Your task to perform on an android device: turn off translation in the chrome app Image 0: 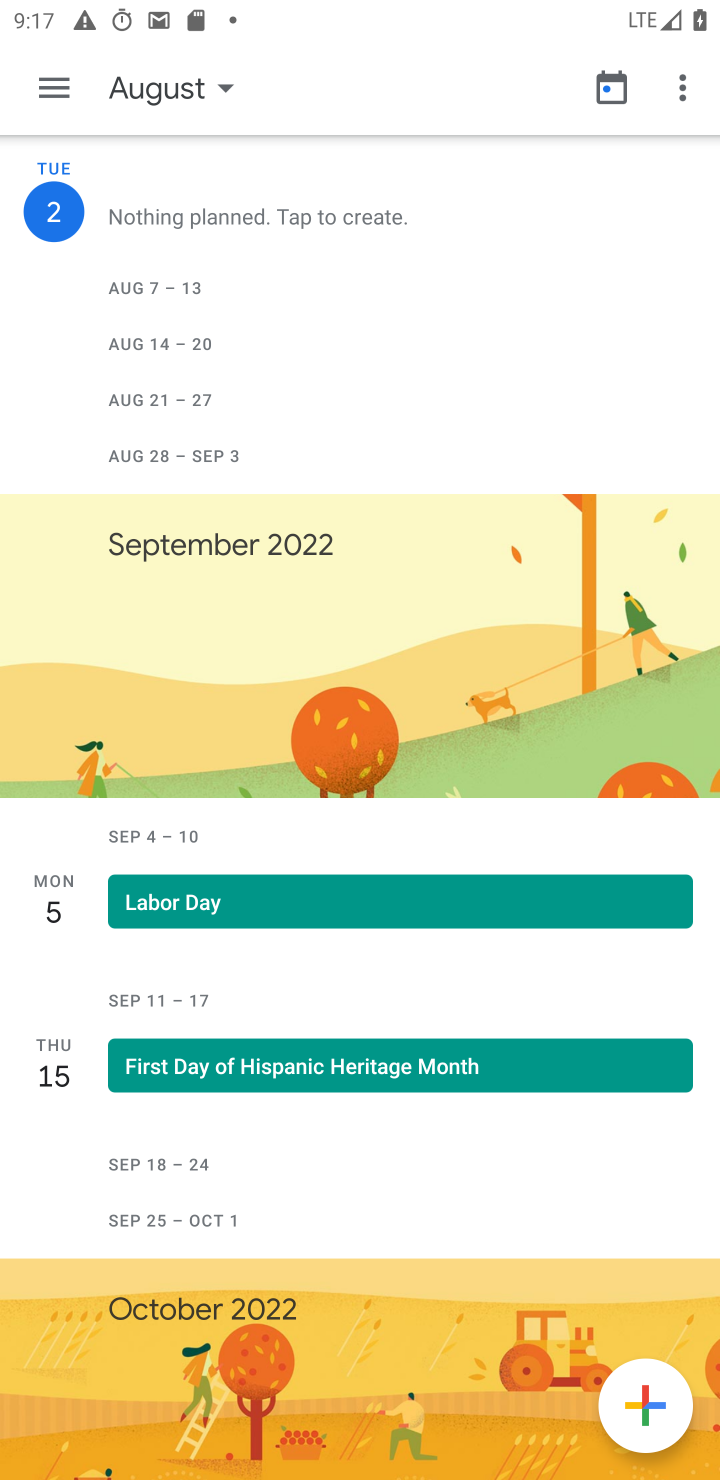
Step 0: click (57, 94)
Your task to perform on an android device: turn off translation in the chrome app Image 1: 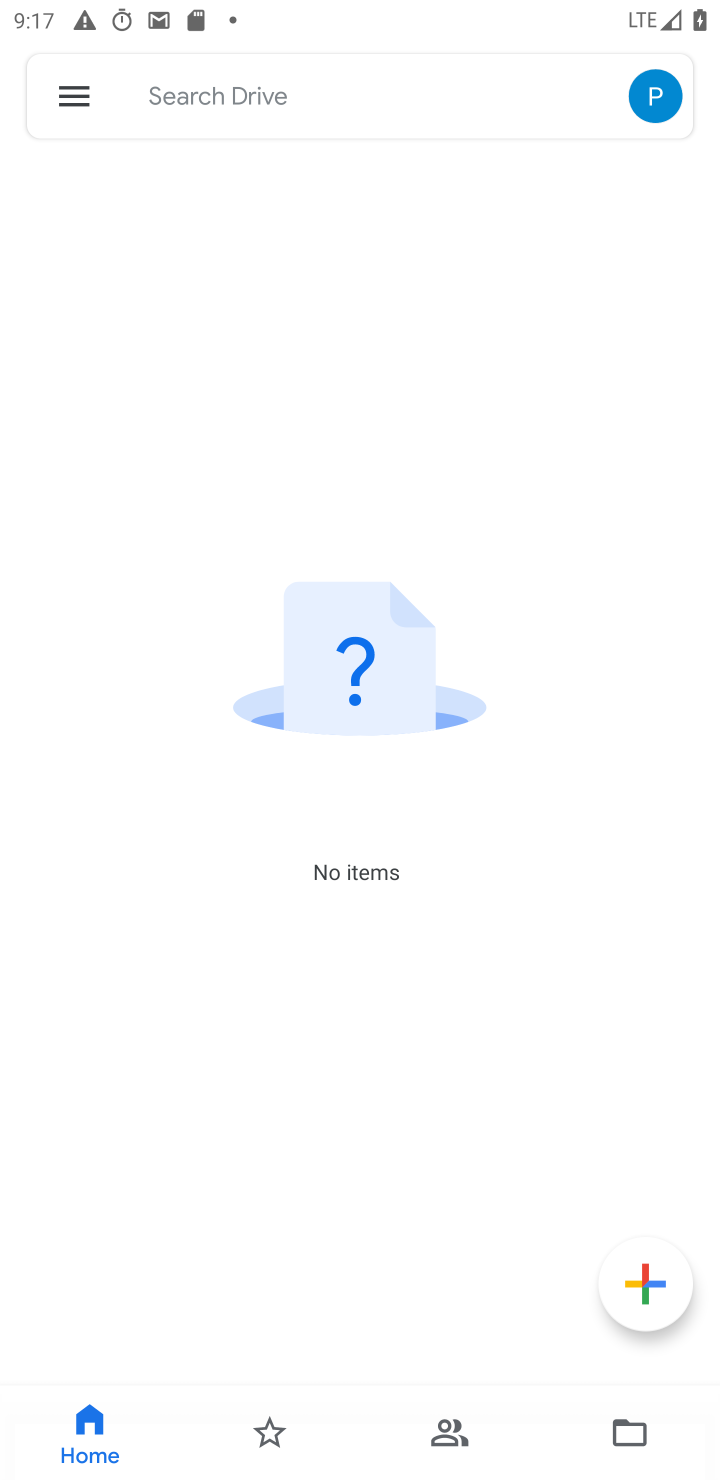
Step 1: drag from (461, 1168) to (369, 489)
Your task to perform on an android device: turn off translation in the chrome app Image 2: 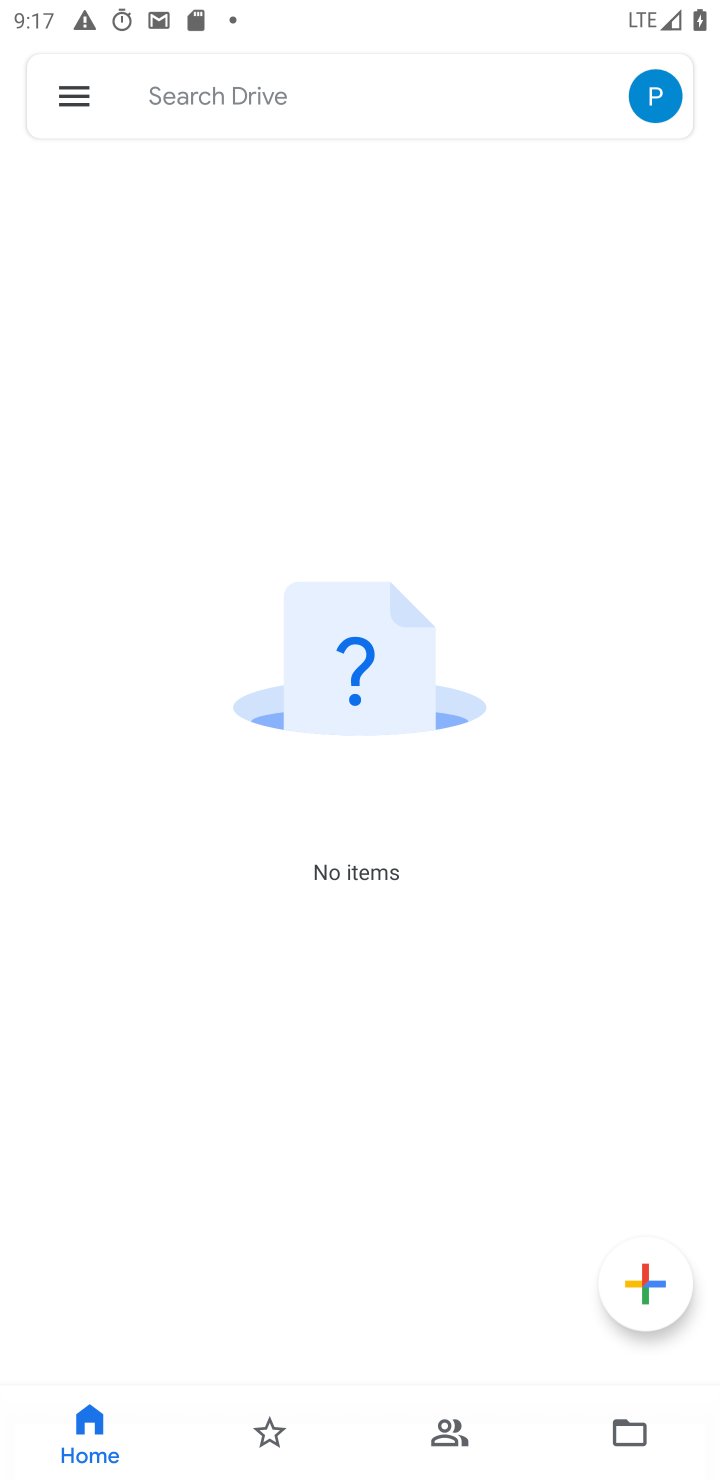
Step 2: drag from (401, 1047) to (401, 495)
Your task to perform on an android device: turn off translation in the chrome app Image 3: 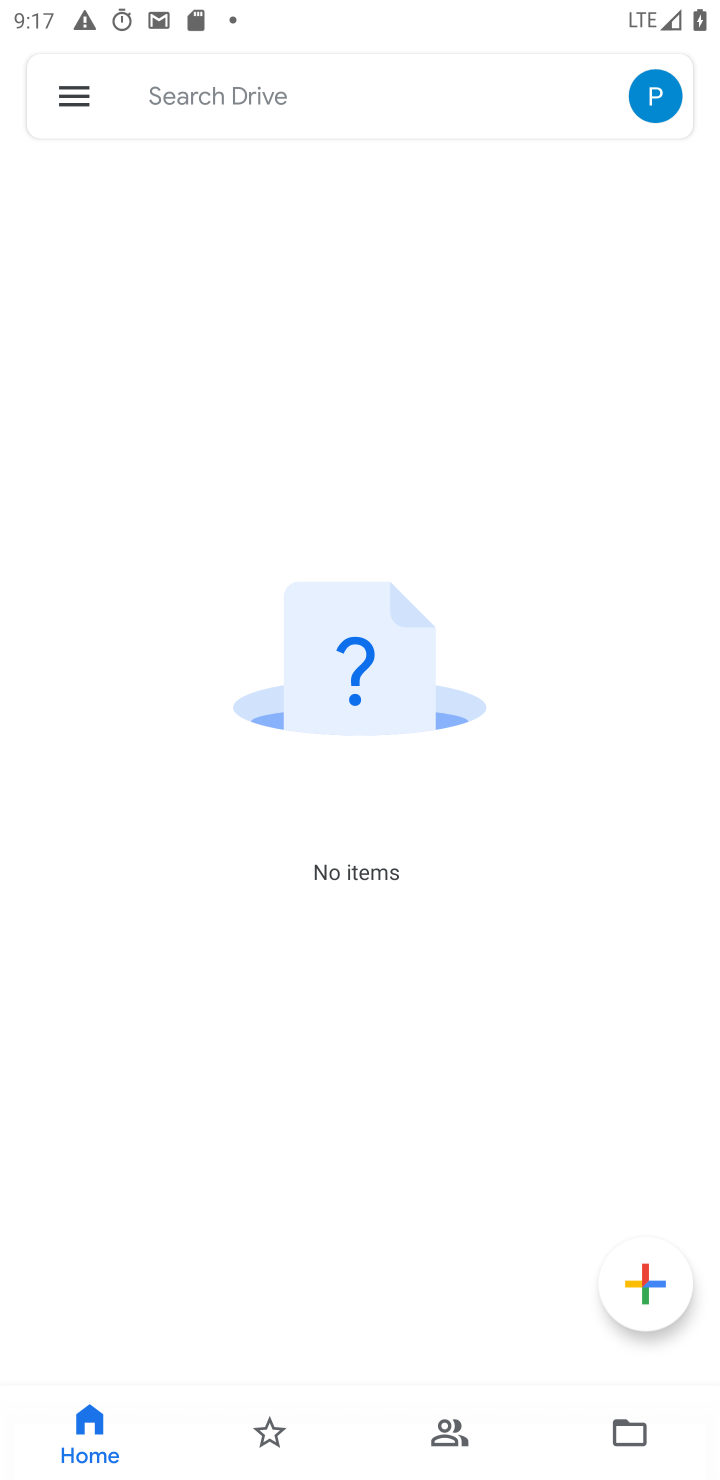
Step 3: press back button
Your task to perform on an android device: turn off translation in the chrome app Image 4: 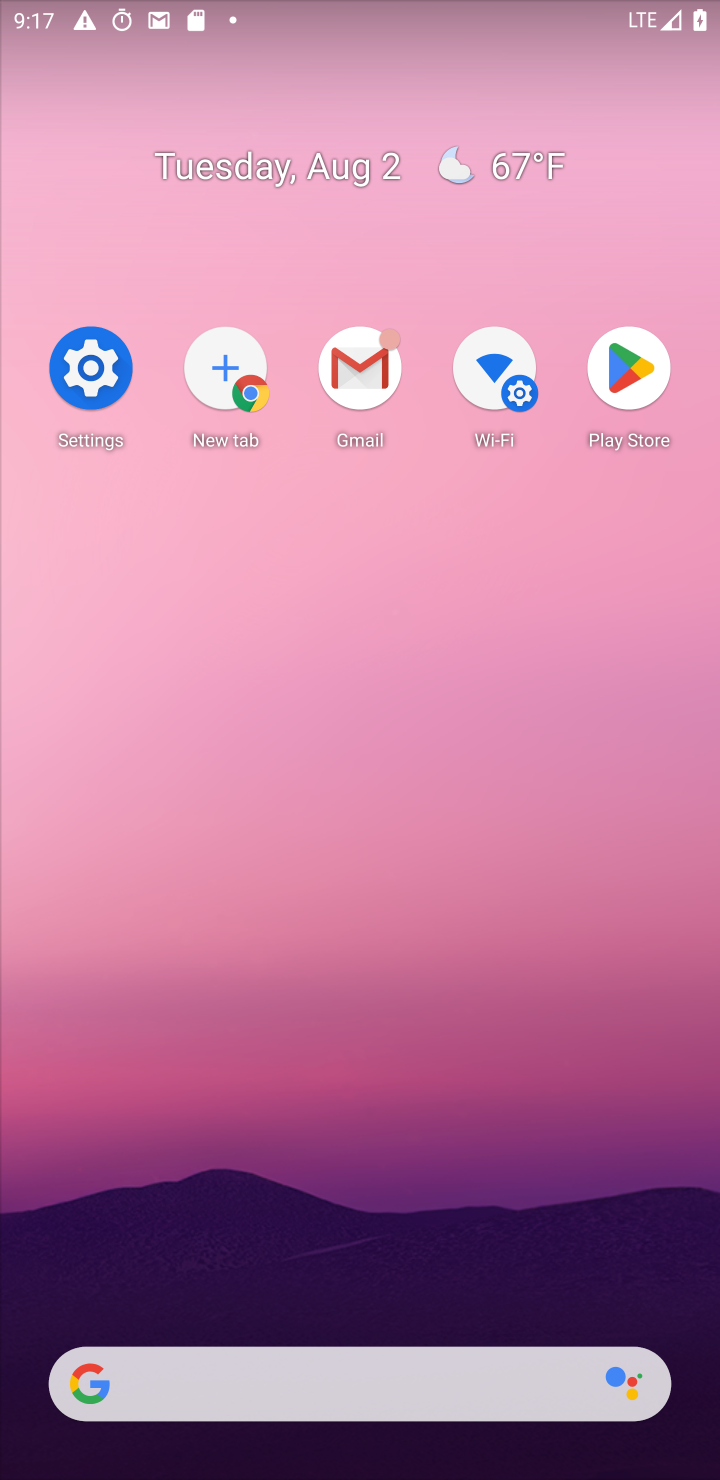
Step 4: drag from (472, 1113) to (492, 364)
Your task to perform on an android device: turn off translation in the chrome app Image 5: 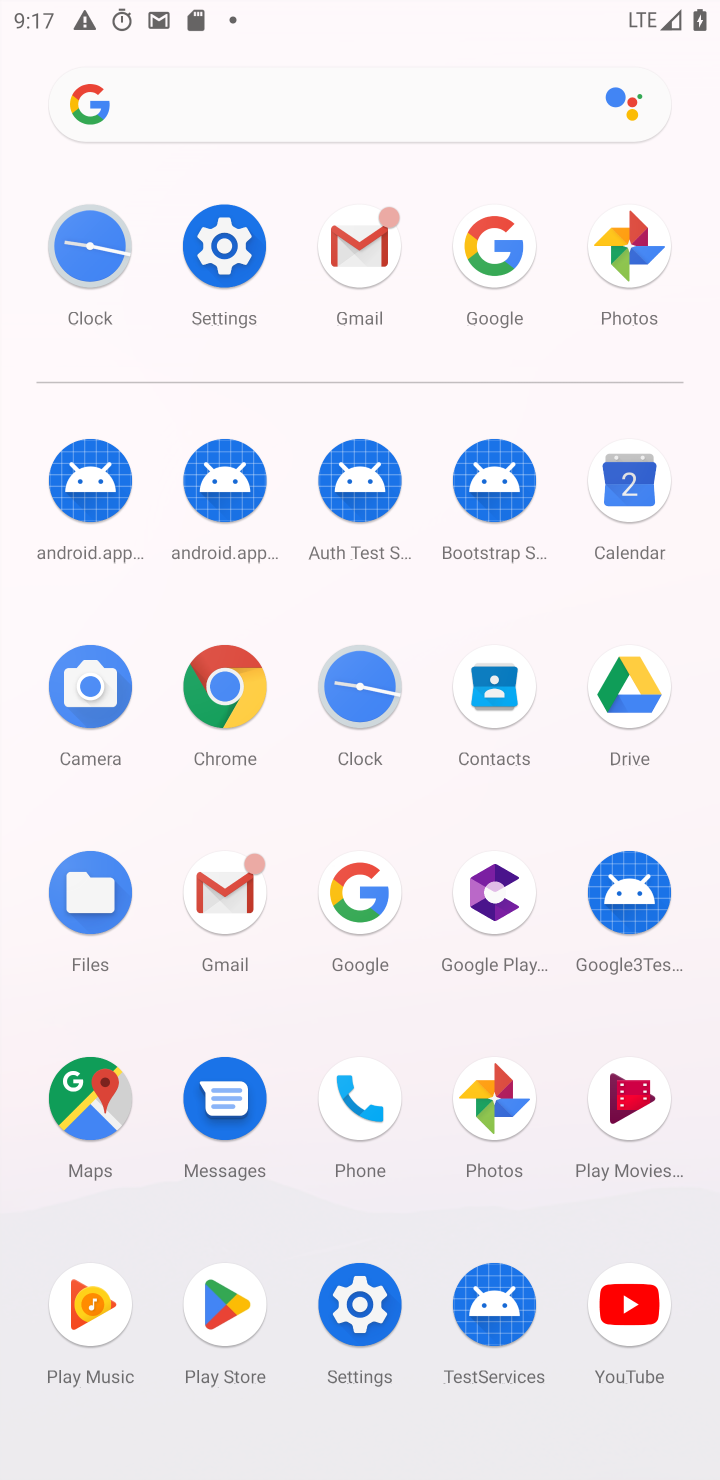
Step 5: click (241, 706)
Your task to perform on an android device: turn off translation in the chrome app Image 6: 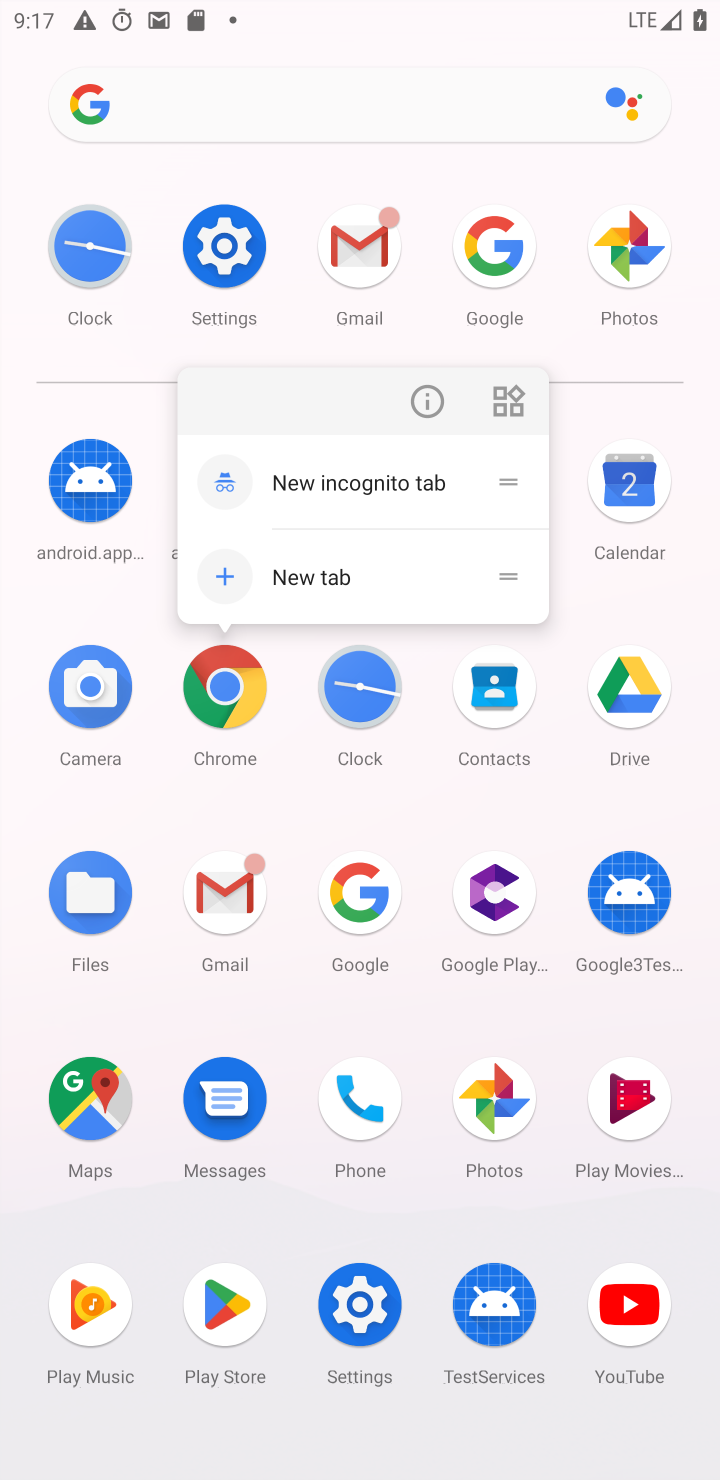
Step 6: click (238, 691)
Your task to perform on an android device: turn off translation in the chrome app Image 7: 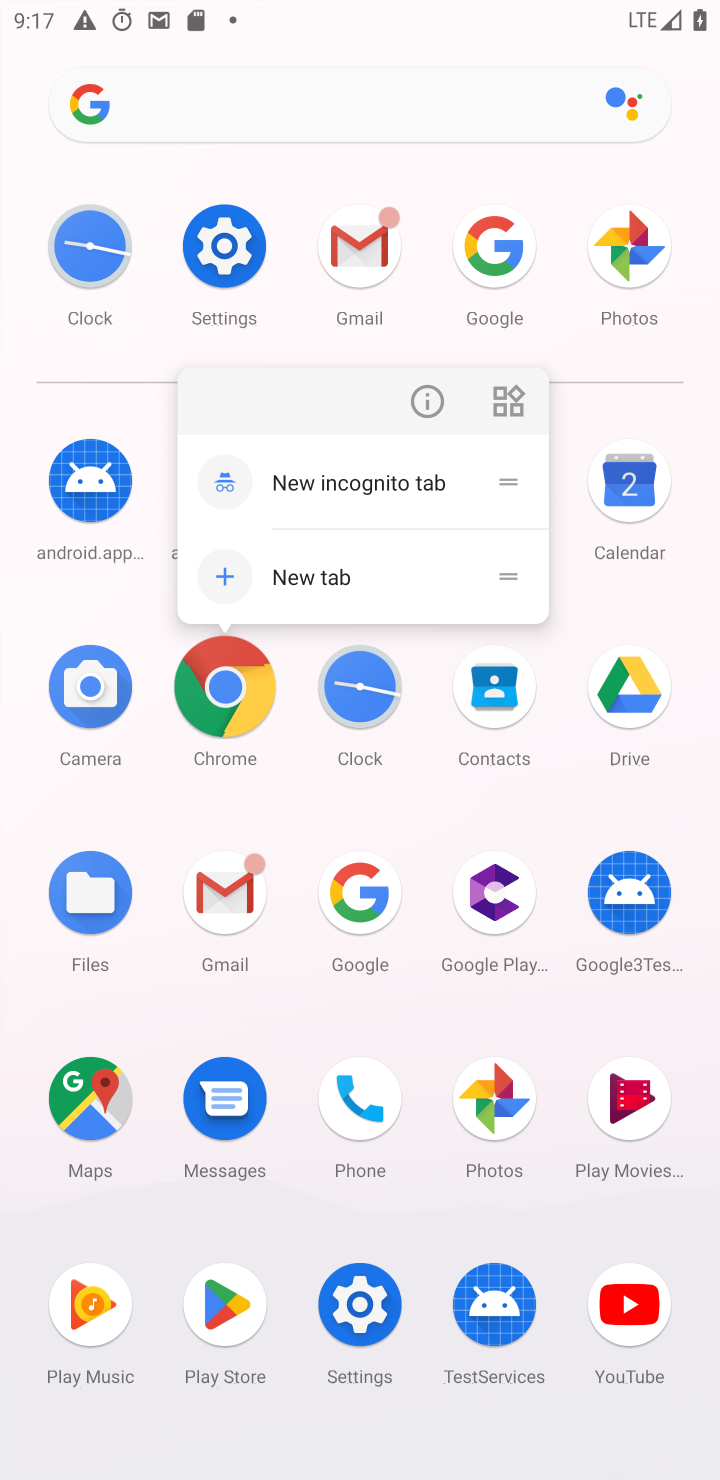
Step 7: click (238, 691)
Your task to perform on an android device: turn off translation in the chrome app Image 8: 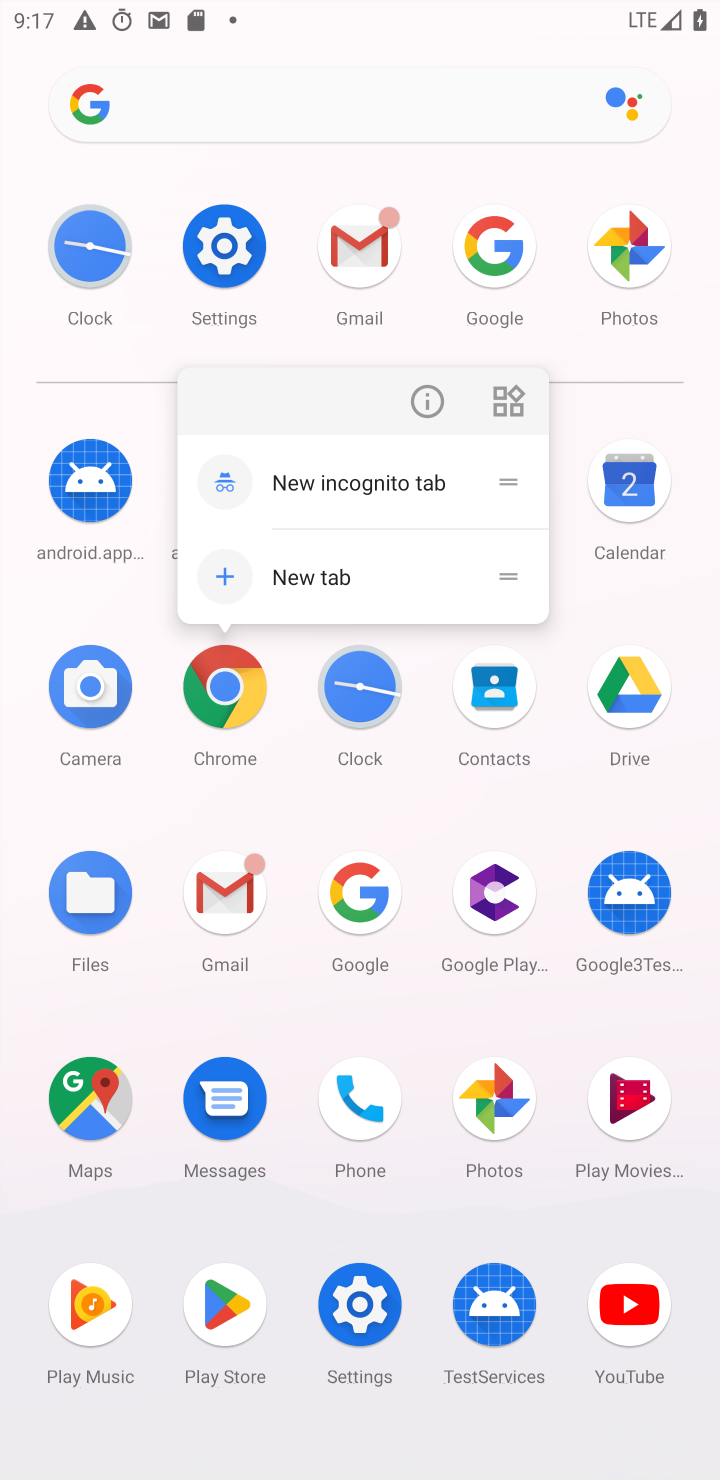
Step 8: click (208, 701)
Your task to perform on an android device: turn off translation in the chrome app Image 9: 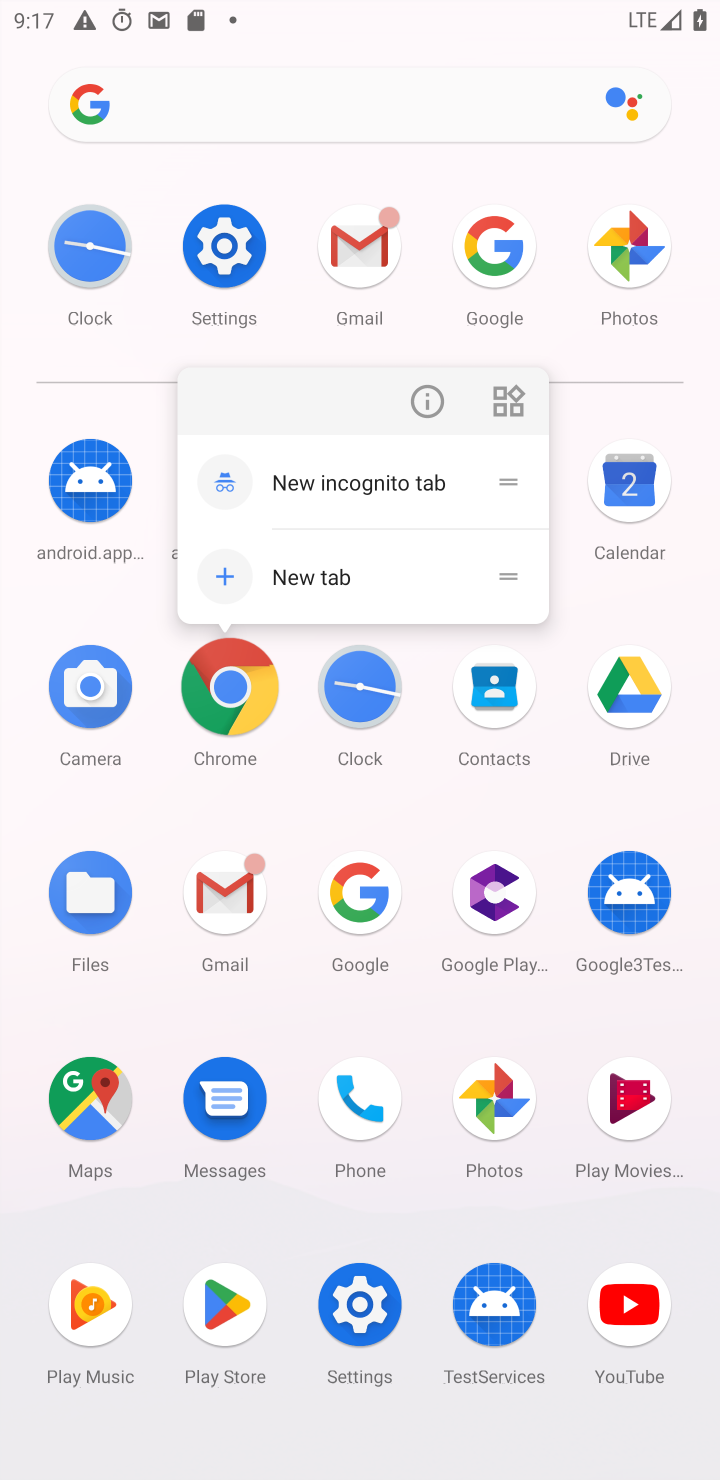
Step 9: click (224, 696)
Your task to perform on an android device: turn off translation in the chrome app Image 10: 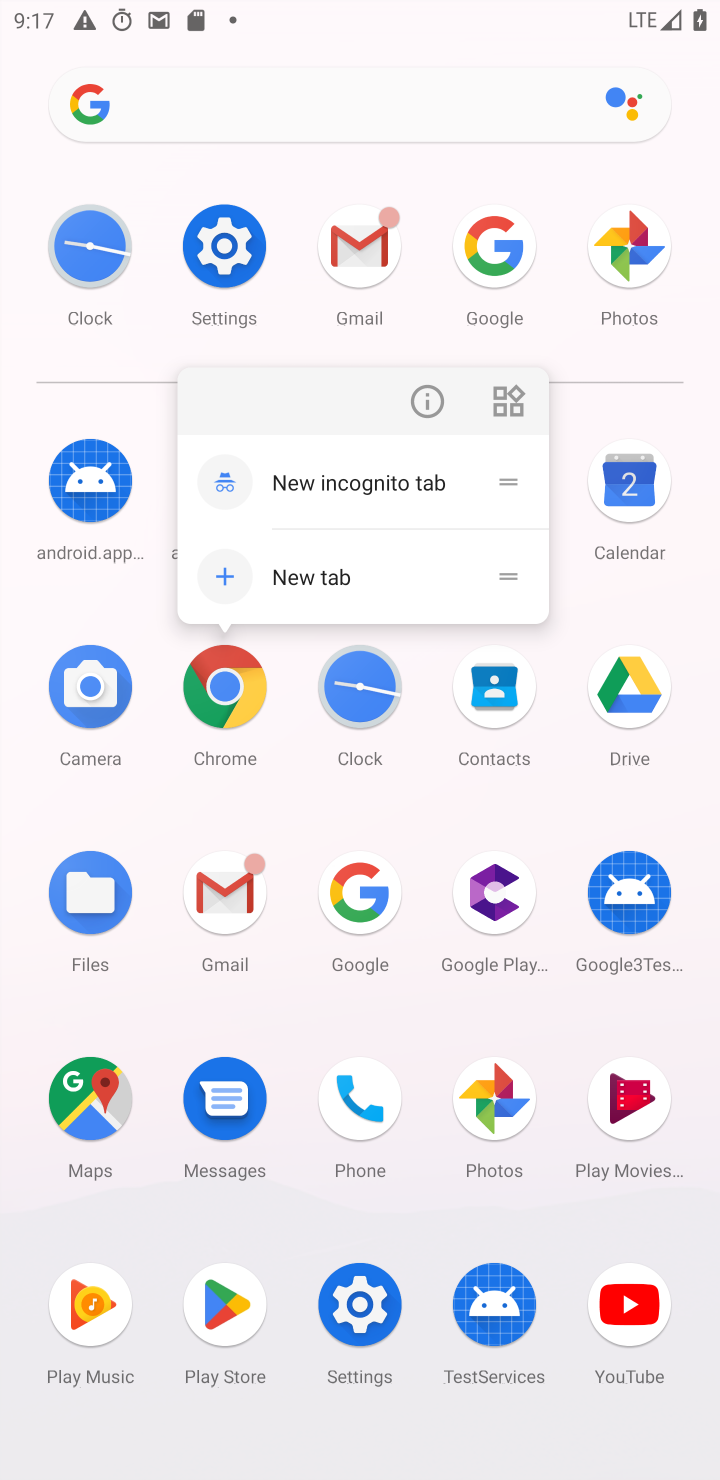
Step 10: click (230, 694)
Your task to perform on an android device: turn off translation in the chrome app Image 11: 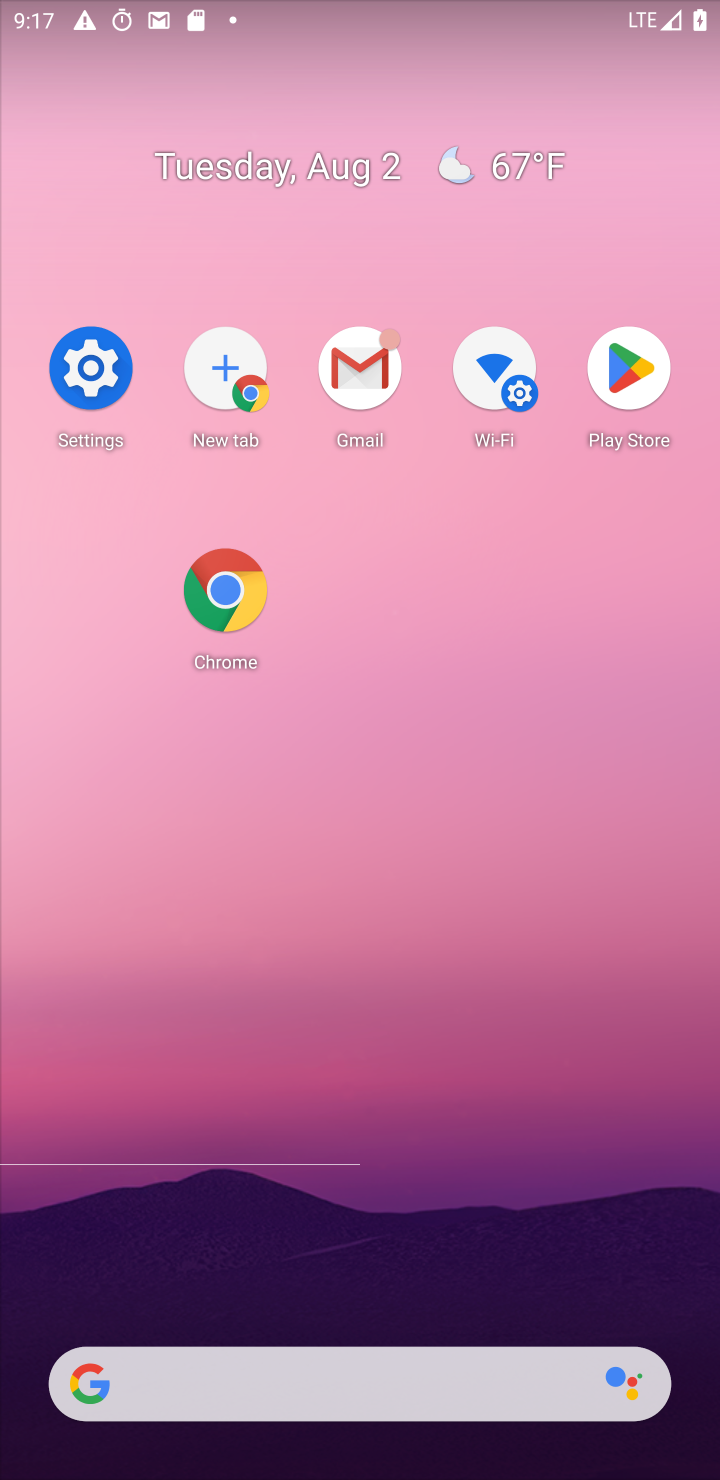
Step 11: click (293, 192)
Your task to perform on an android device: turn off translation in the chrome app Image 12: 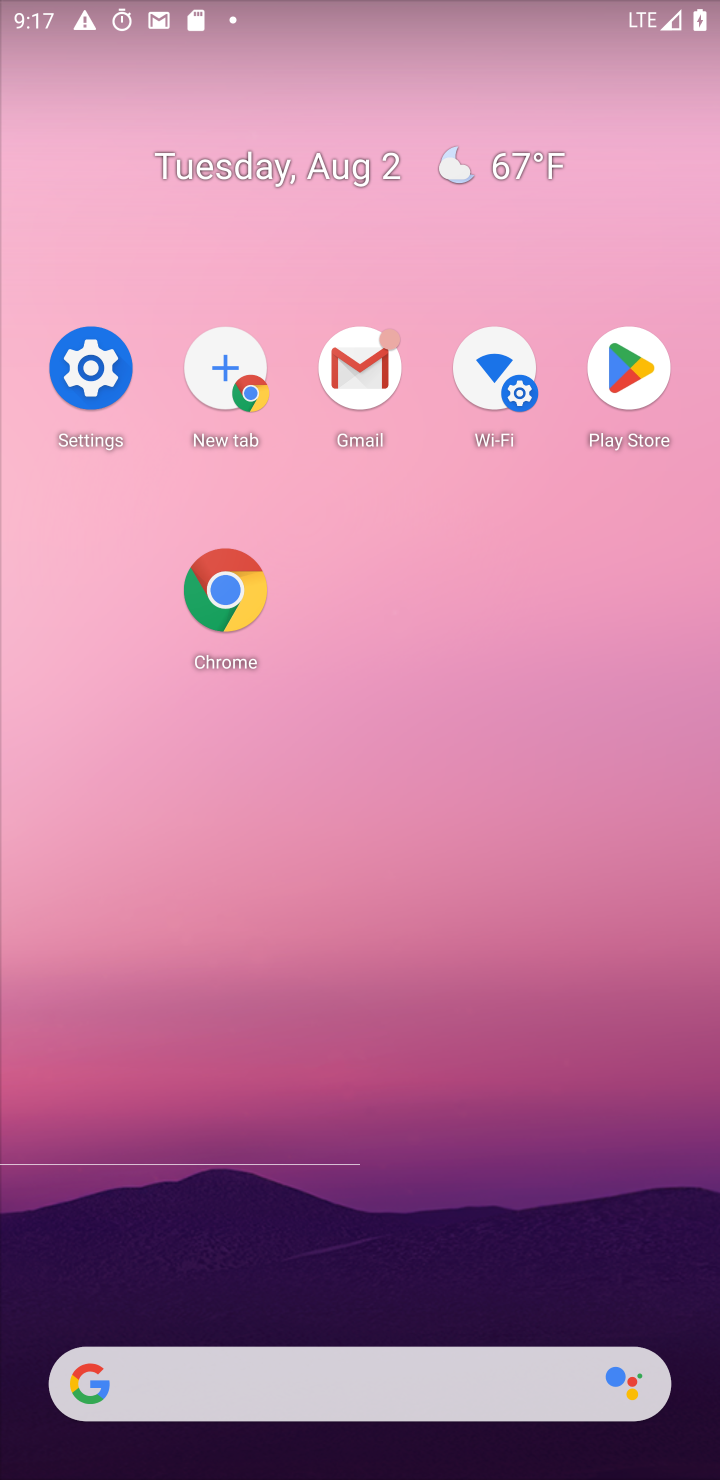
Step 12: drag from (254, 668) to (210, 329)
Your task to perform on an android device: turn off translation in the chrome app Image 13: 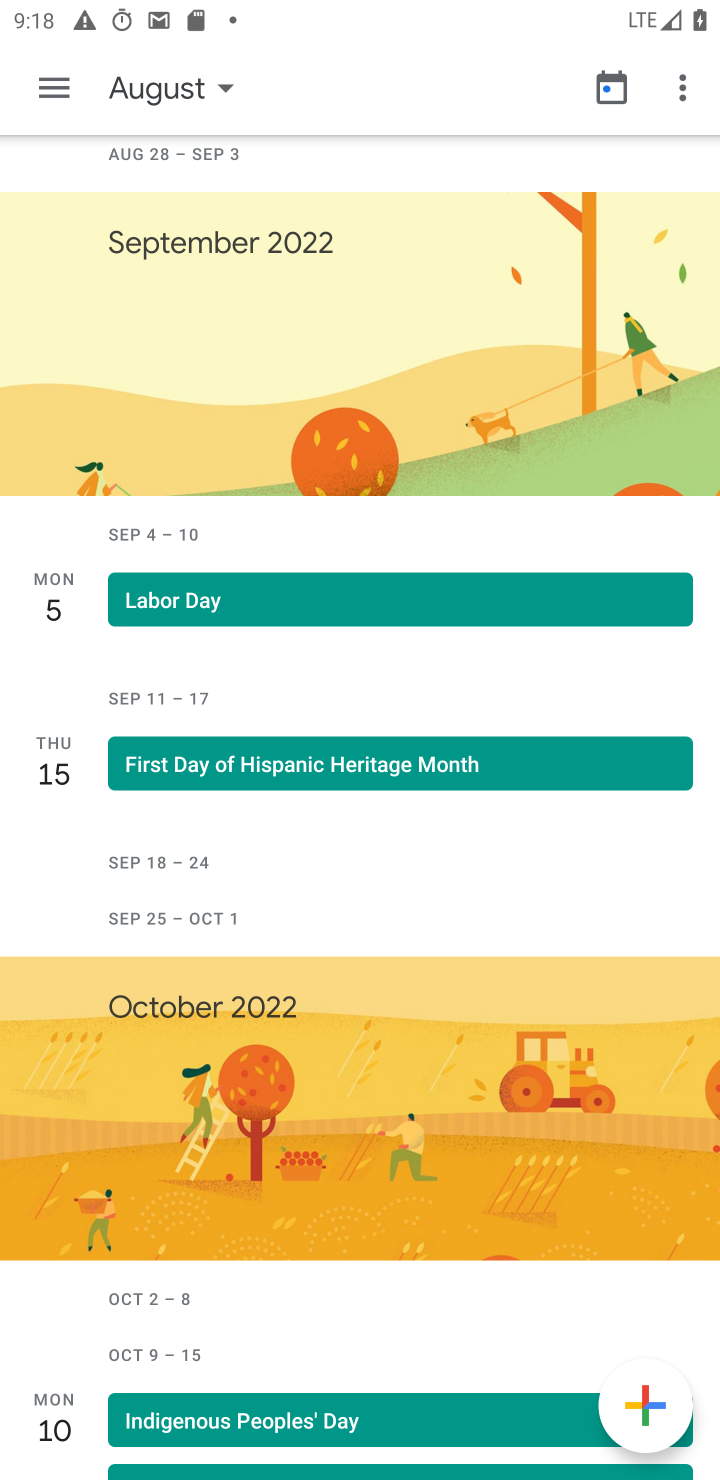
Step 13: press back button
Your task to perform on an android device: turn off translation in the chrome app Image 14: 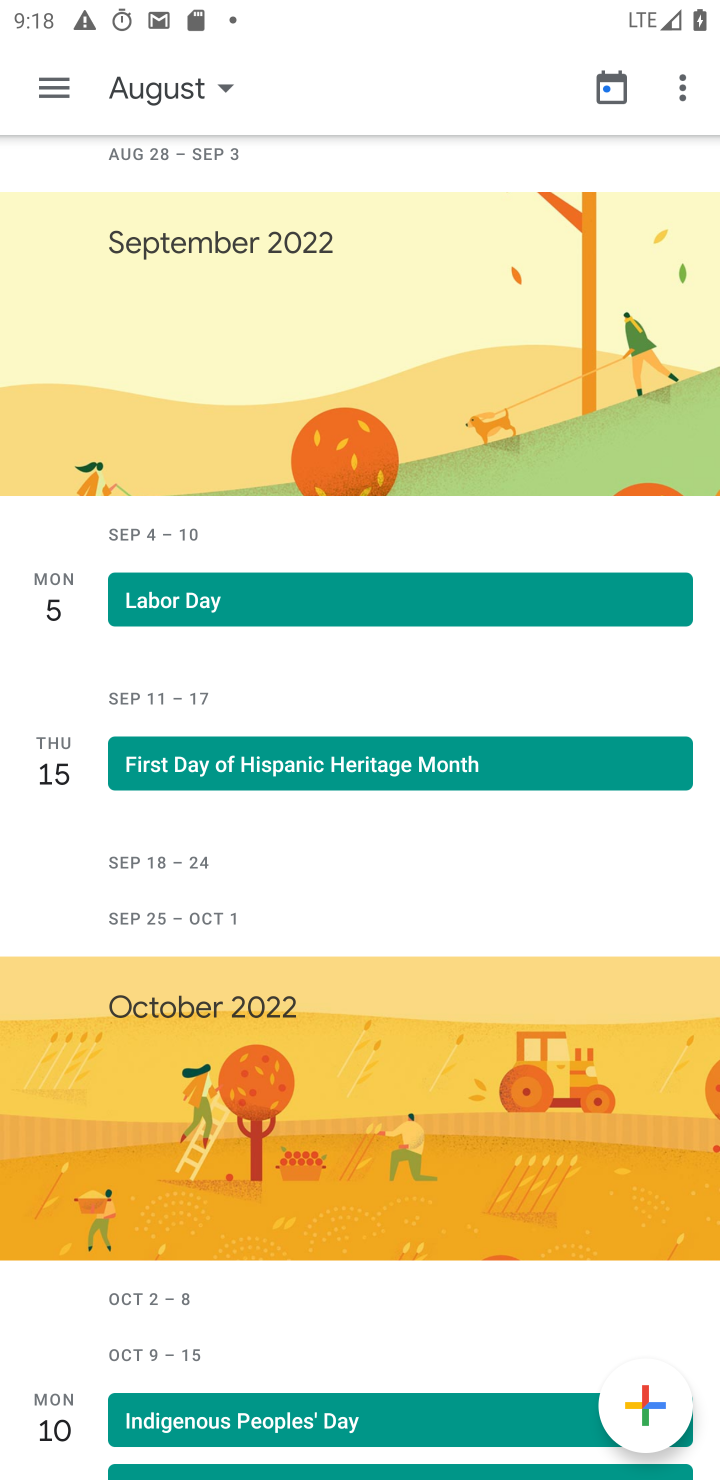
Step 14: press back button
Your task to perform on an android device: turn off translation in the chrome app Image 15: 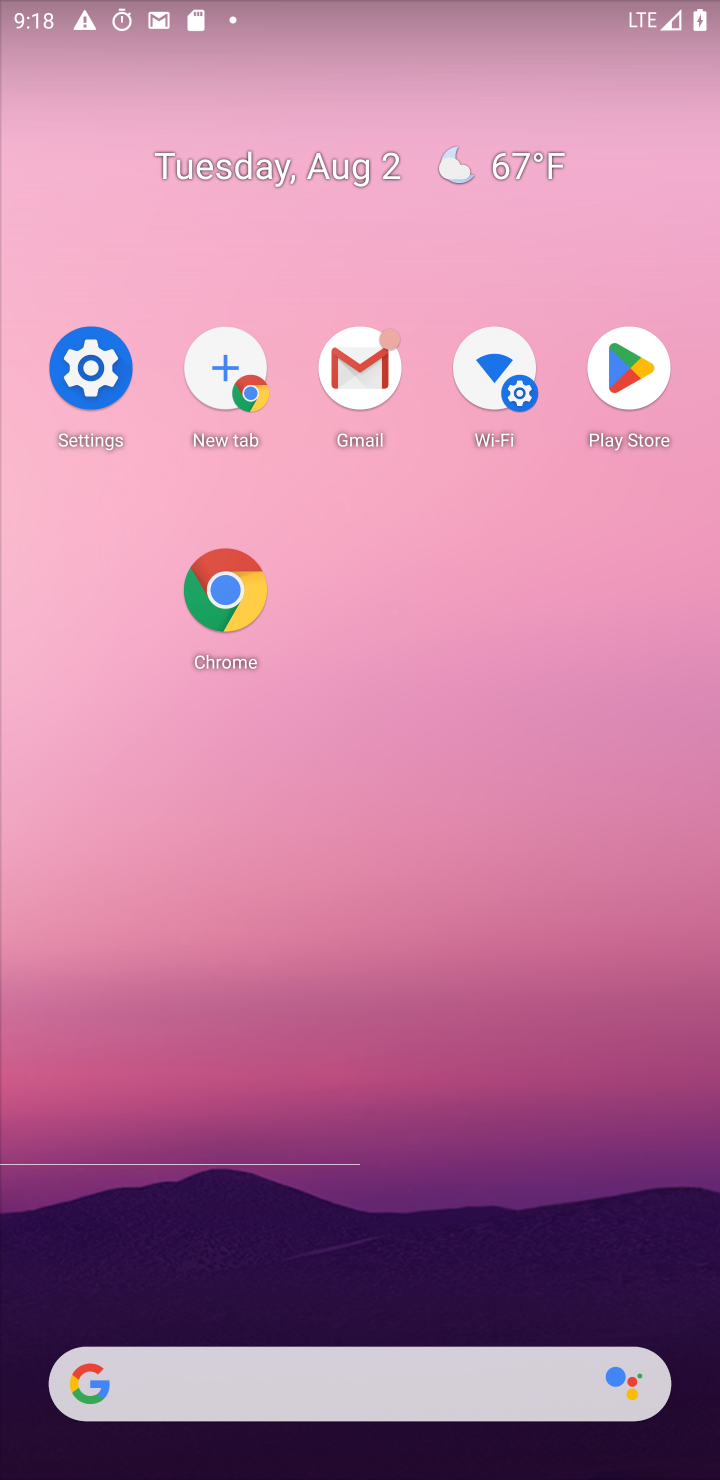
Step 15: press home button
Your task to perform on an android device: turn off translation in the chrome app Image 16: 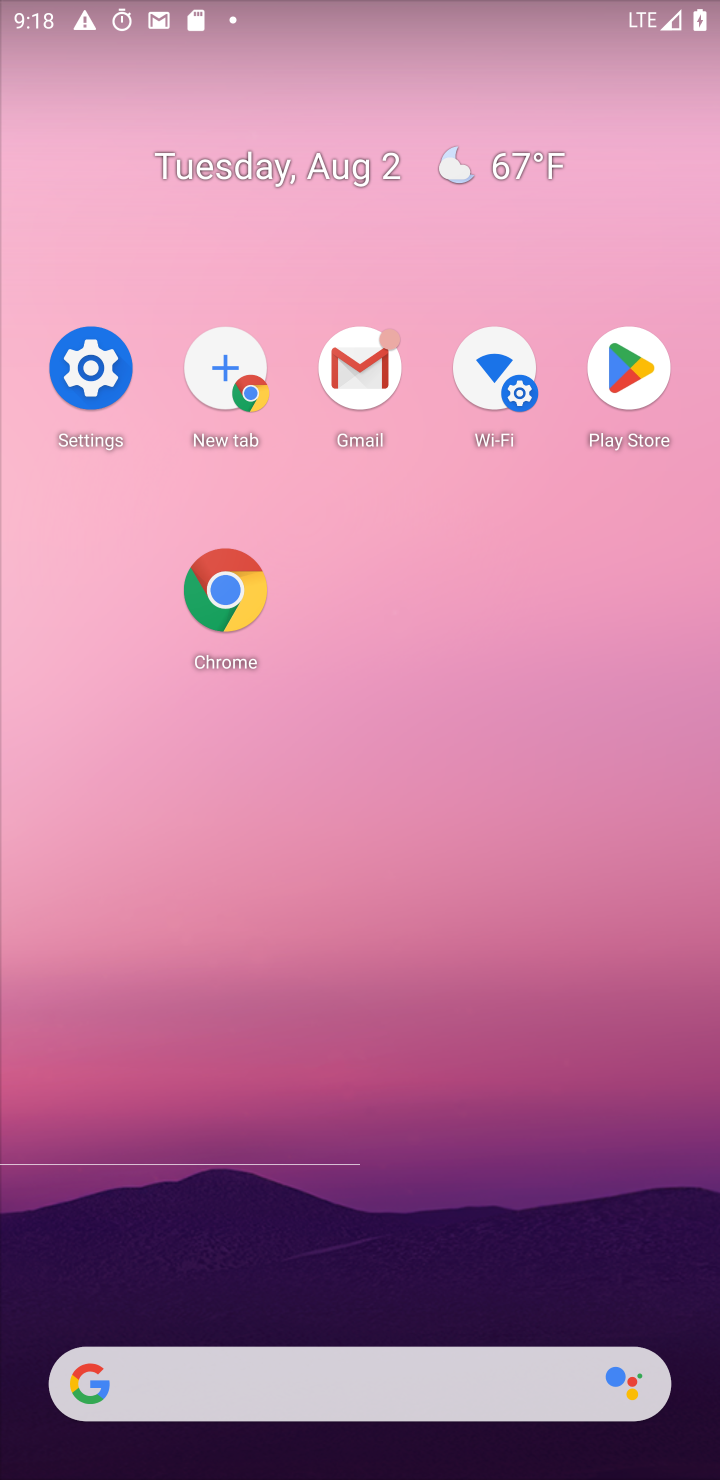
Step 16: click (233, 596)
Your task to perform on an android device: turn off translation in the chrome app Image 17: 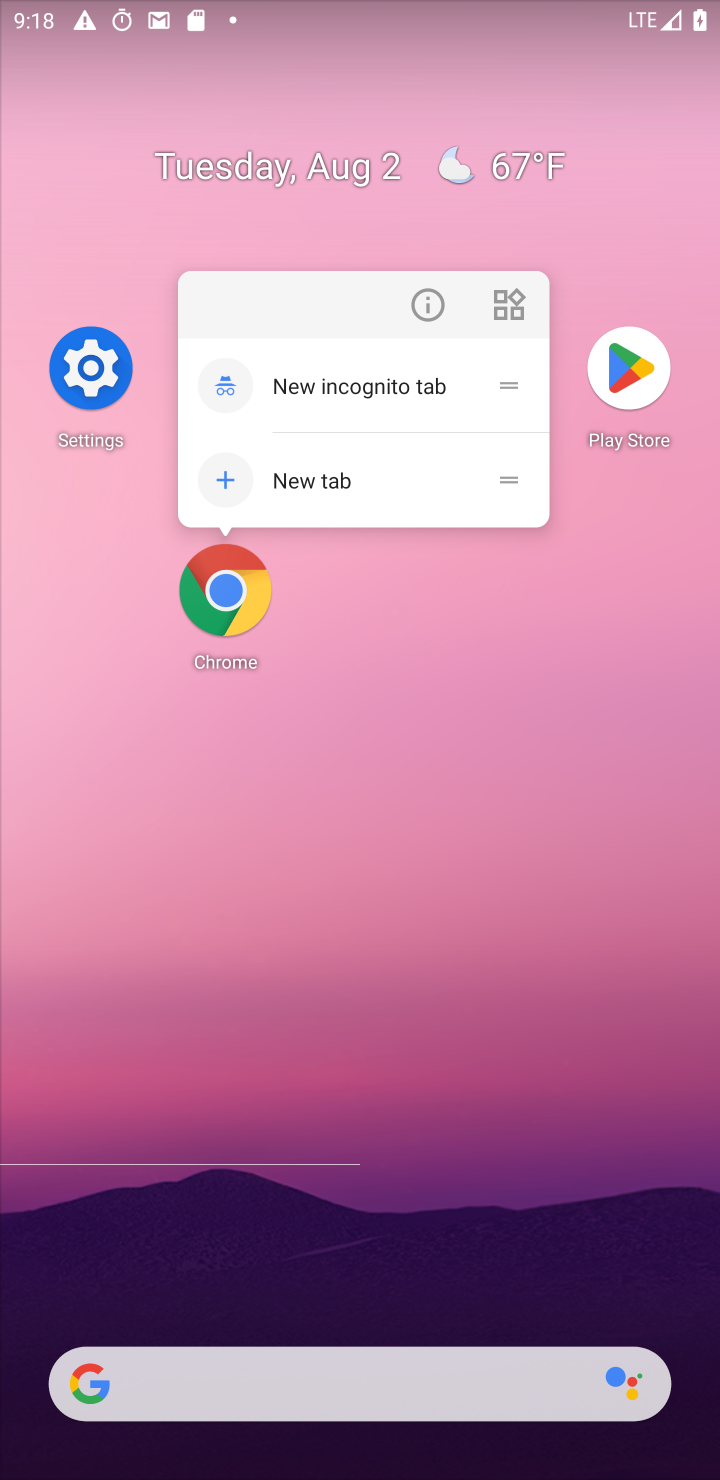
Step 17: click (315, 472)
Your task to perform on an android device: turn off translation in the chrome app Image 18: 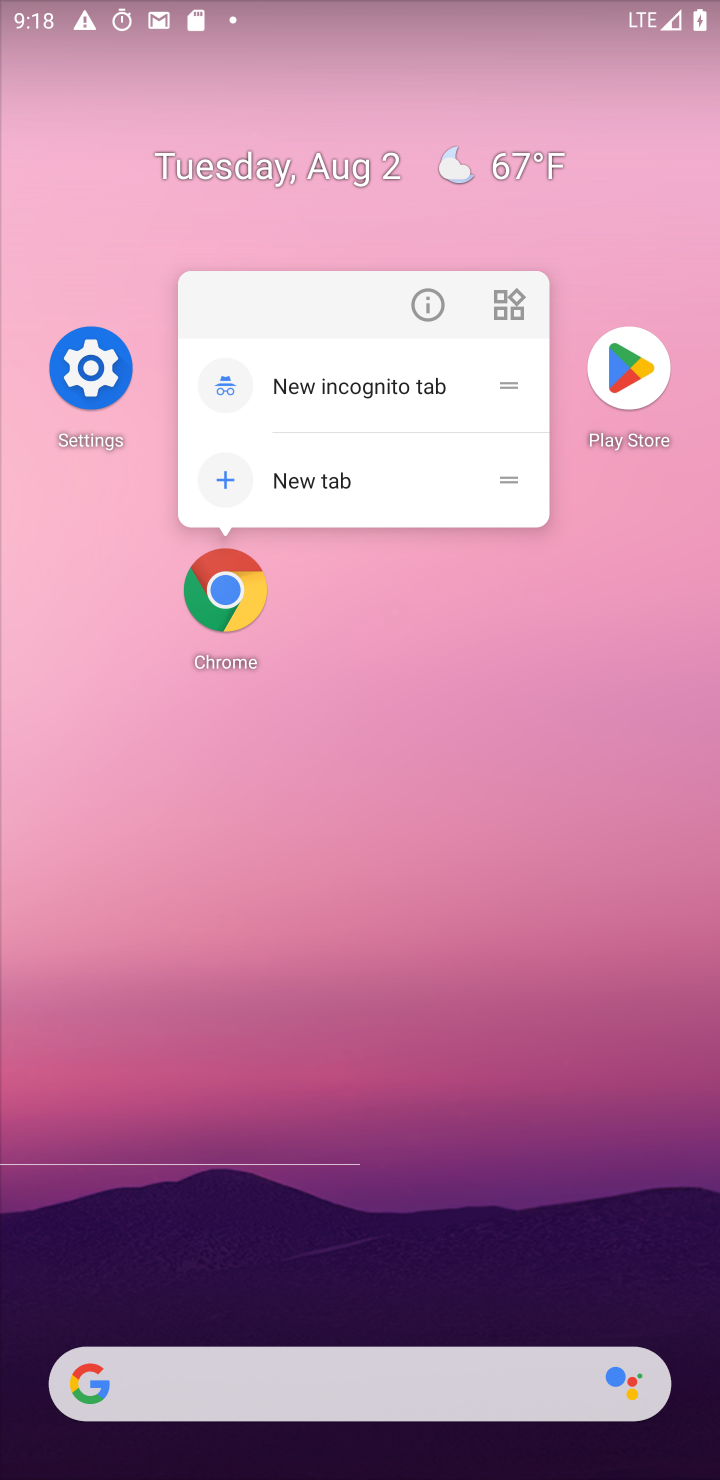
Step 18: click (339, 470)
Your task to perform on an android device: turn off translation in the chrome app Image 19: 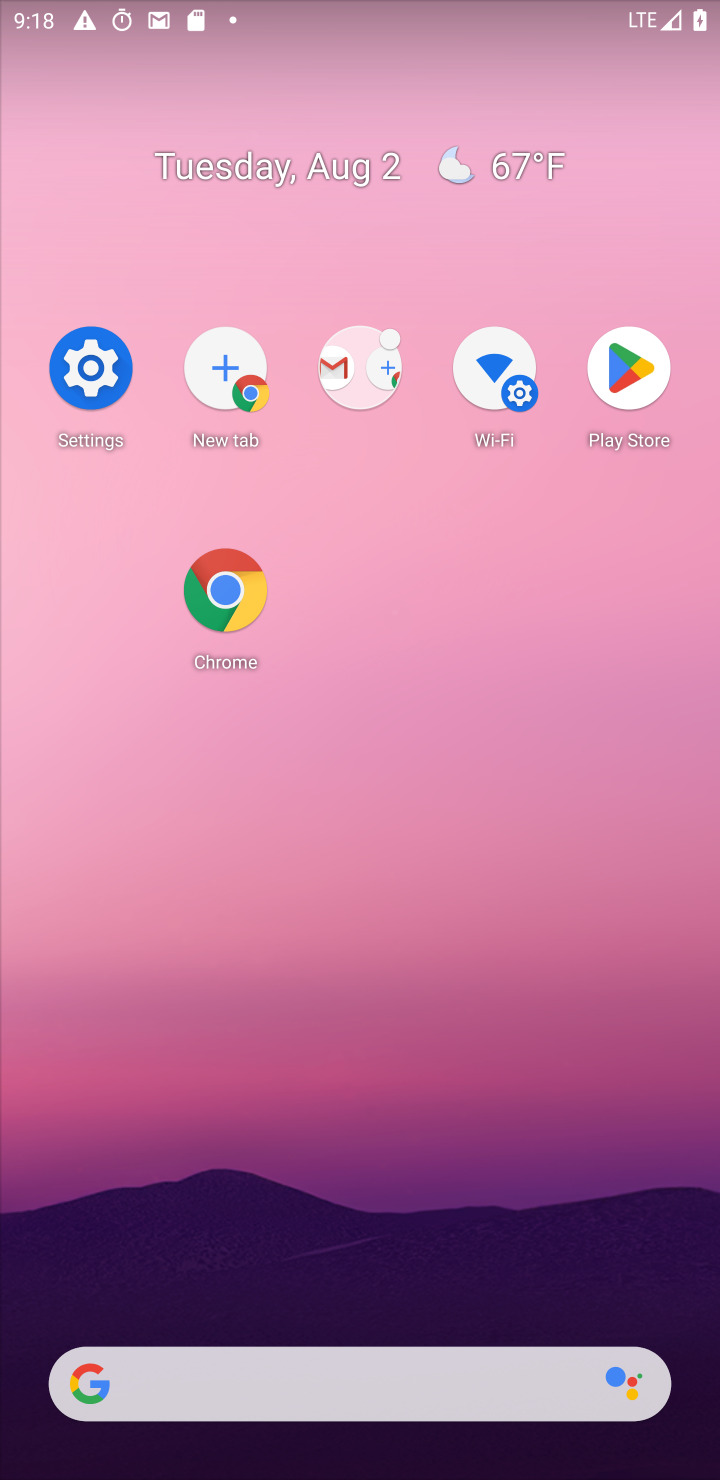
Step 19: click (223, 586)
Your task to perform on an android device: turn off translation in the chrome app Image 20: 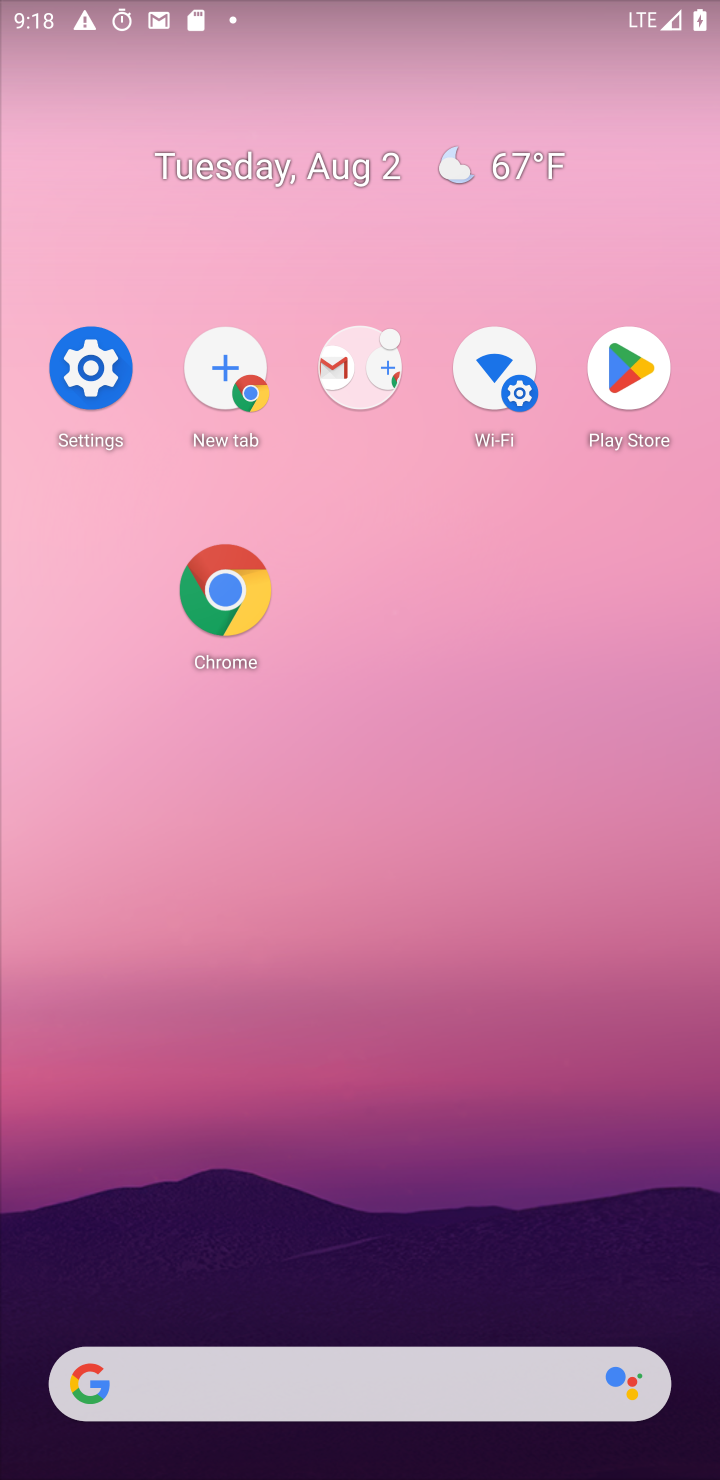
Step 20: click (223, 586)
Your task to perform on an android device: turn off translation in the chrome app Image 21: 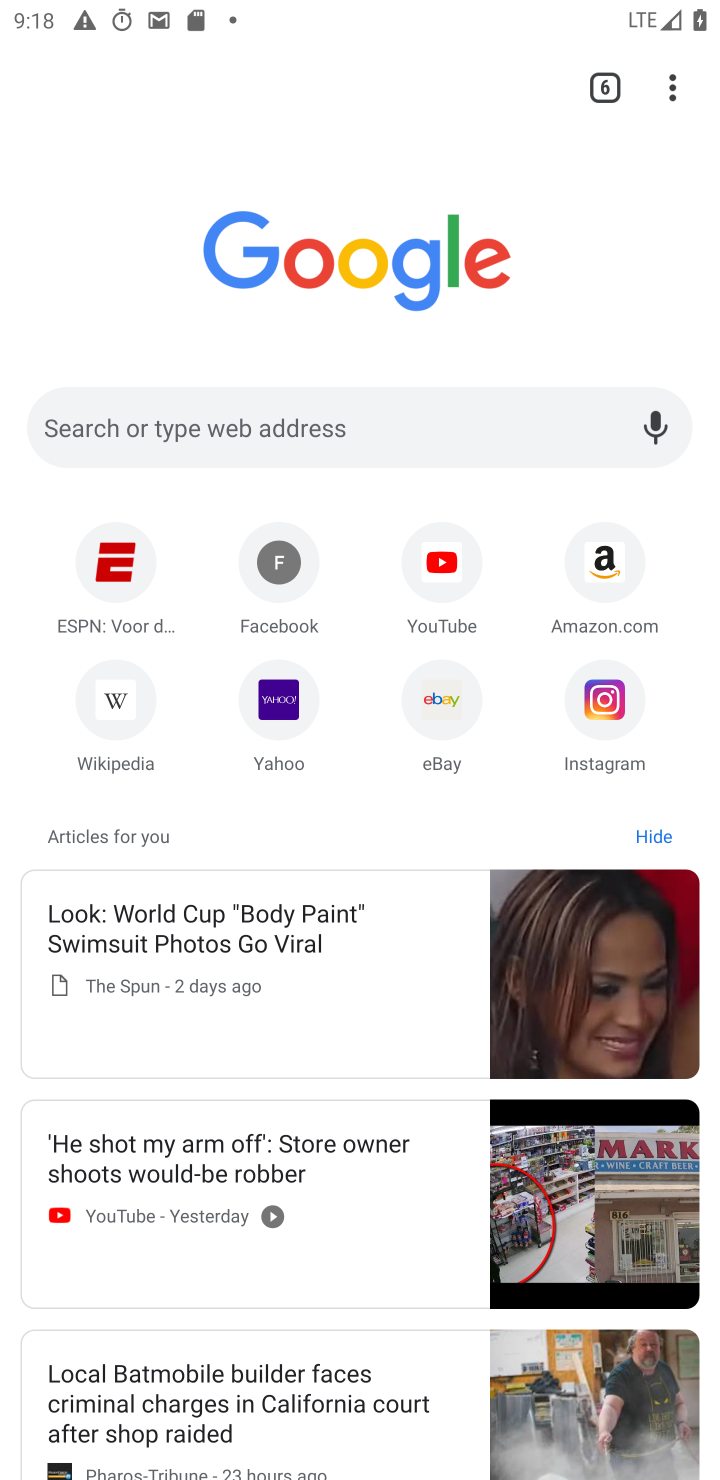
Step 21: drag from (678, 90) to (363, 818)
Your task to perform on an android device: turn off translation in the chrome app Image 22: 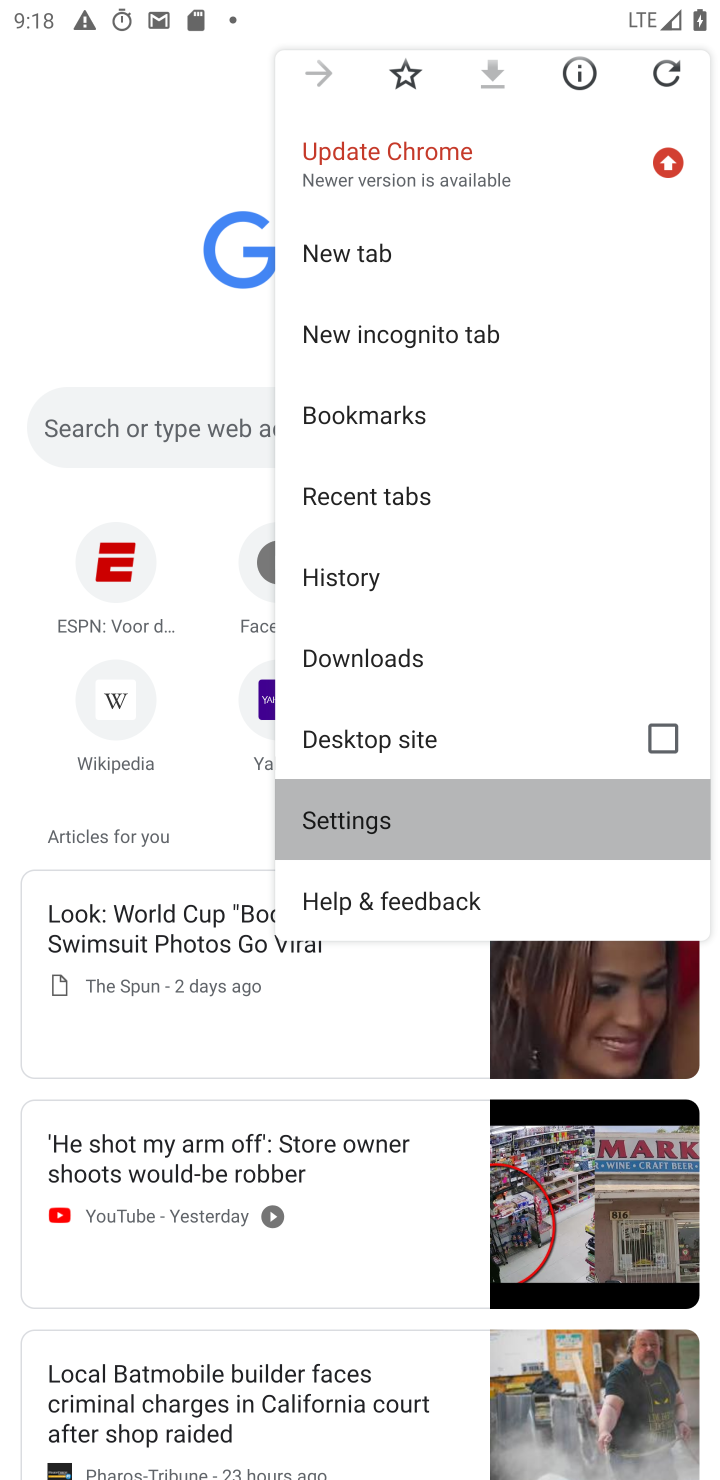
Step 22: click (363, 818)
Your task to perform on an android device: turn off translation in the chrome app Image 23: 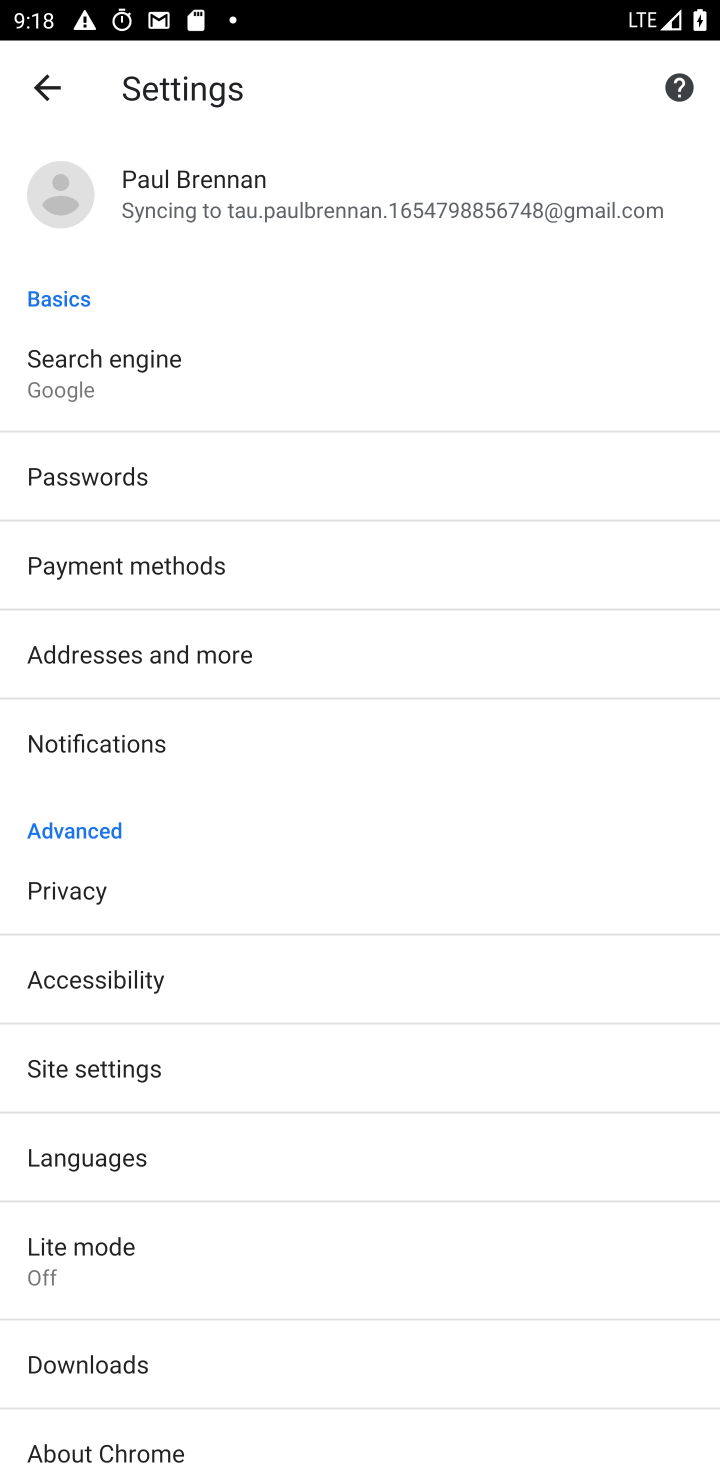
Step 23: click (153, 1157)
Your task to perform on an android device: turn off translation in the chrome app Image 24: 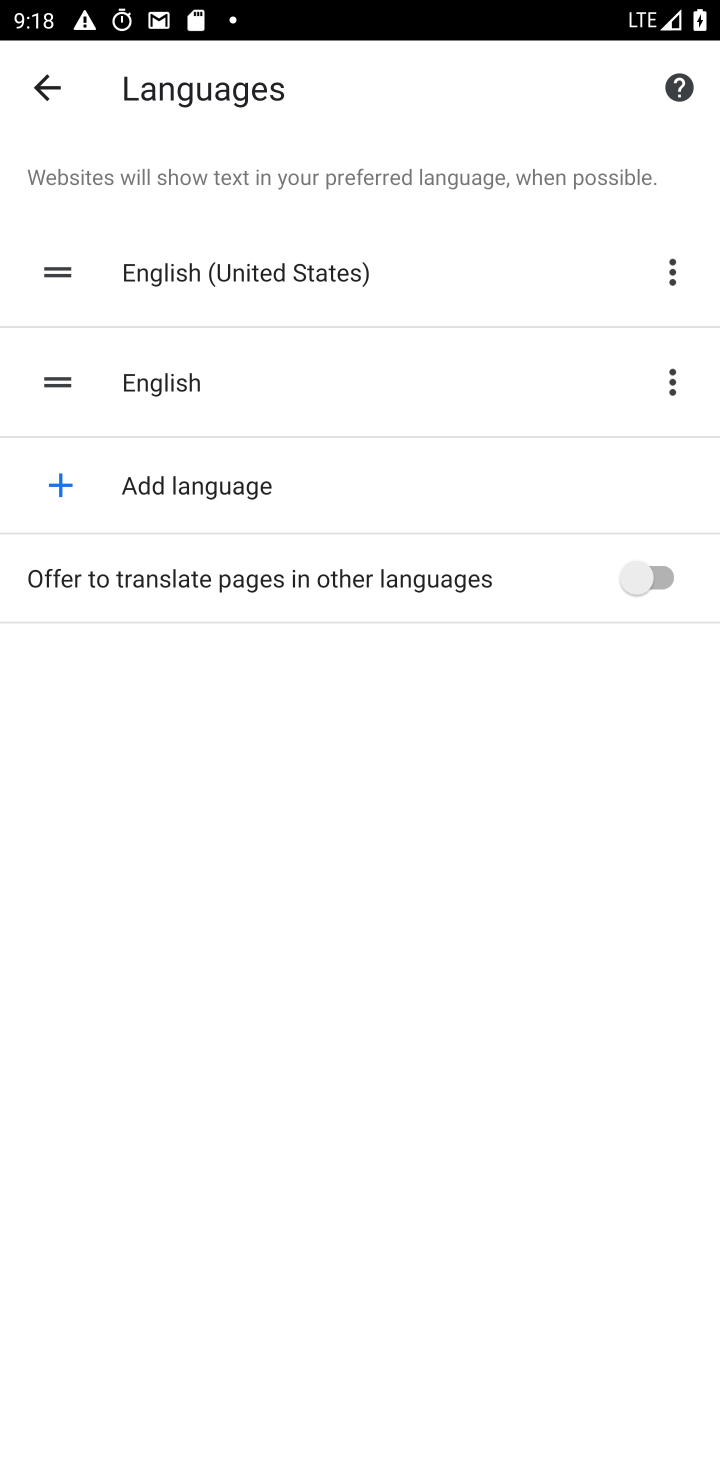
Step 24: task complete